Your task to perform on an android device: Search for sushi restaurants on Maps Image 0: 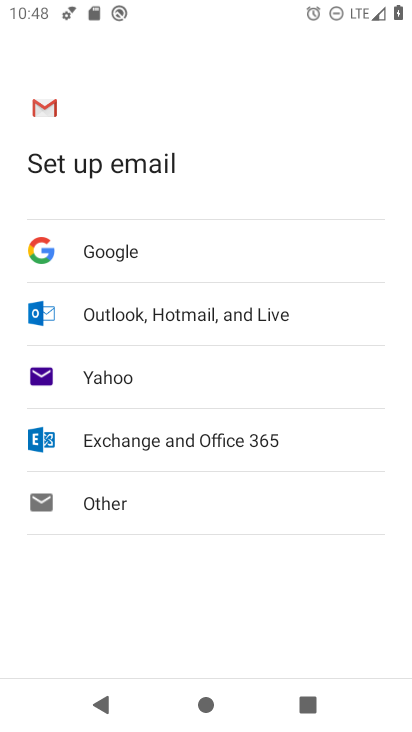
Step 0: press home button
Your task to perform on an android device: Search for sushi restaurants on Maps Image 1: 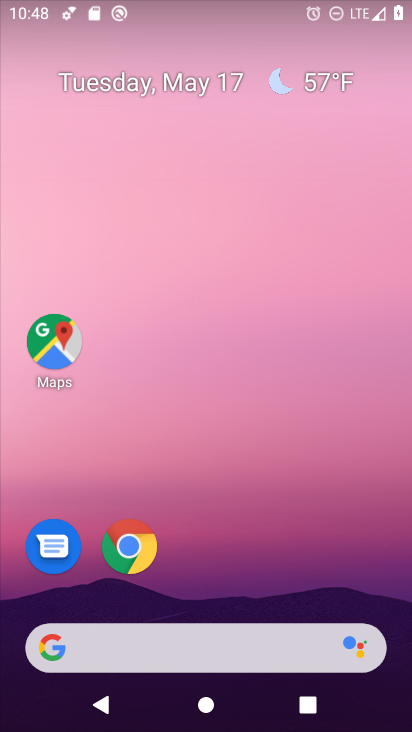
Step 1: click (59, 351)
Your task to perform on an android device: Search for sushi restaurants on Maps Image 2: 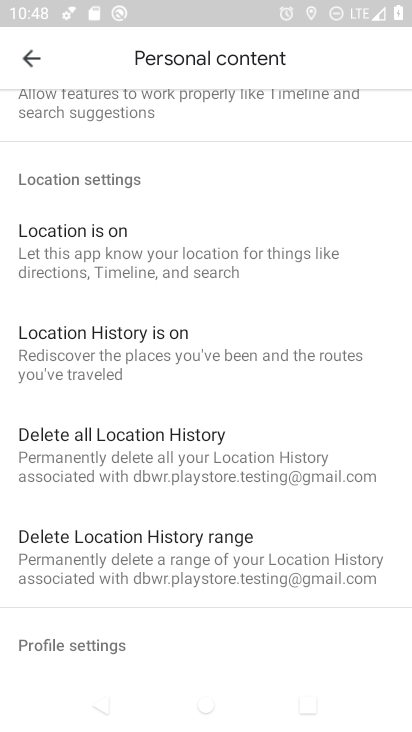
Step 2: click (28, 62)
Your task to perform on an android device: Search for sushi restaurants on Maps Image 3: 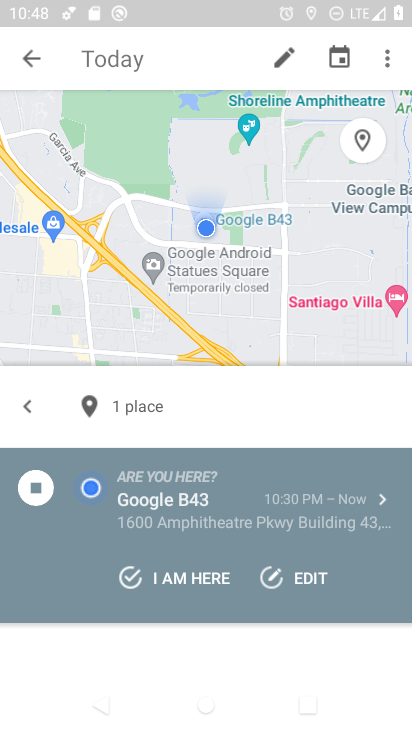
Step 3: click (28, 62)
Your task to perform on an android device: Search for sushi restaurants on Maps Image 4: 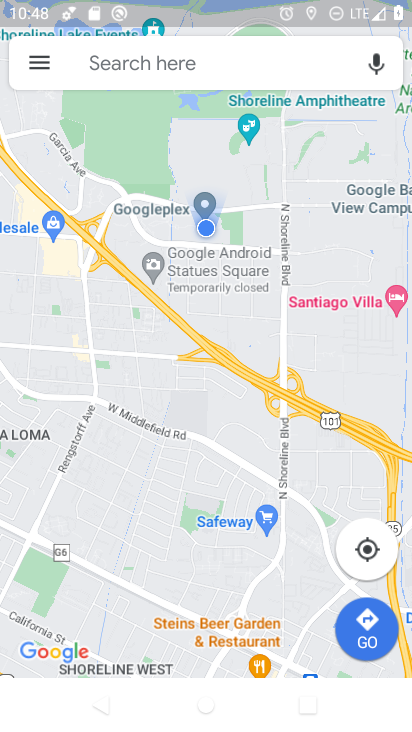
Step 4: click (105, 62)
Your task to perform on an android device: Search for sushi restaurants on Maps Image 5: 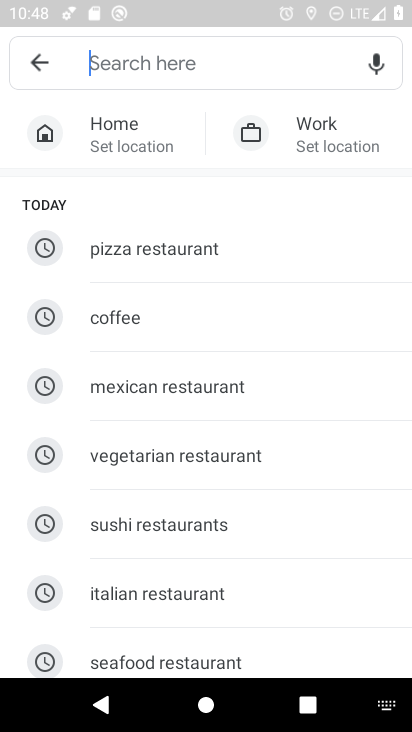
Step 5: type "sushi restaurant"
Your task to perform on an android device: Search for sushi restaurants on Maps Image 6: 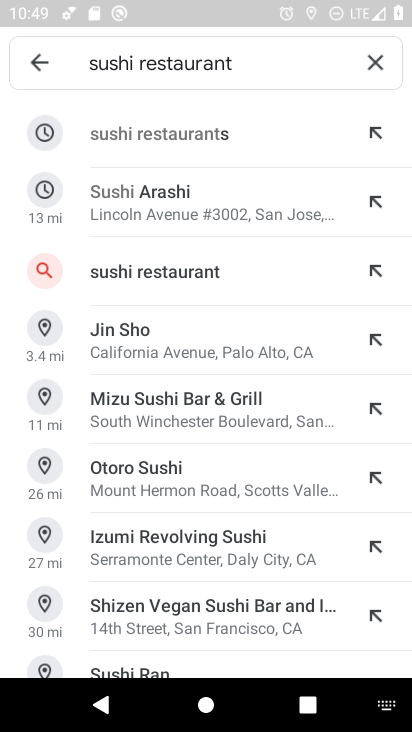
Step 6: click (128, 136)
Your task to perform on an android device: Search for sushi restaurants on Maps Image 7: 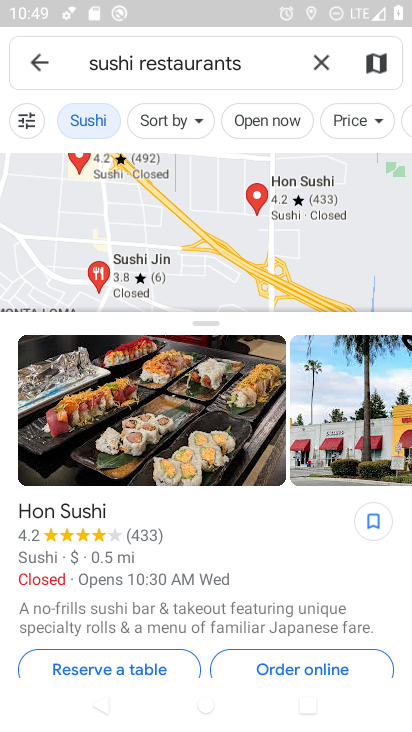
Step 7: task complete